Your task to perform on an android device: Search for vegetarian restaurants on Maps Image 0: 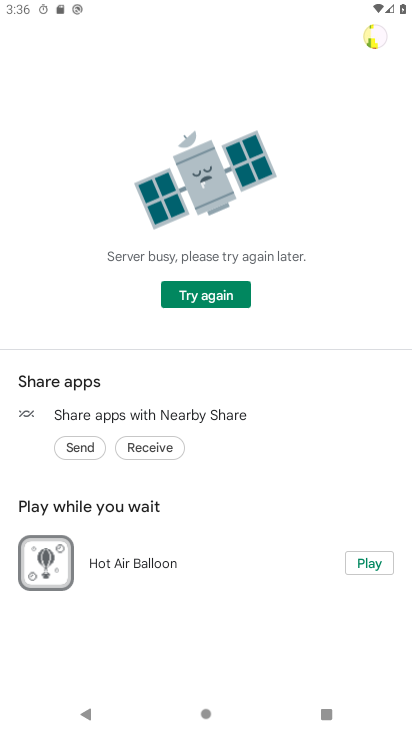
Step 0: press home button
Your task to perform on an android device: Search for vegetarian restaurants on Maps Image 1: 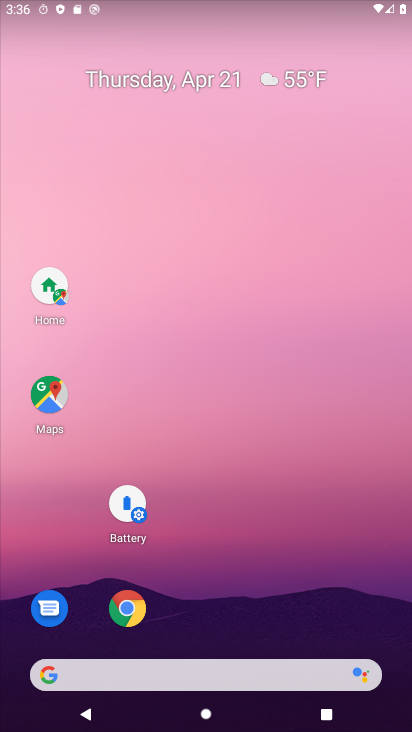
Step 1: click (62, 393)
Your task to perform on an android device: Search for vegetarian restaurants on Maps Image 2: 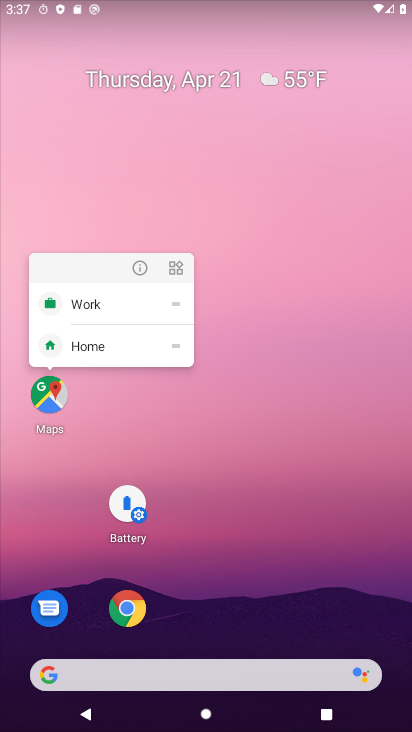
Step 2: click (62, 393)
Your task to perform on an android device: Search for vegetarian restaurants on Maps Image 3: 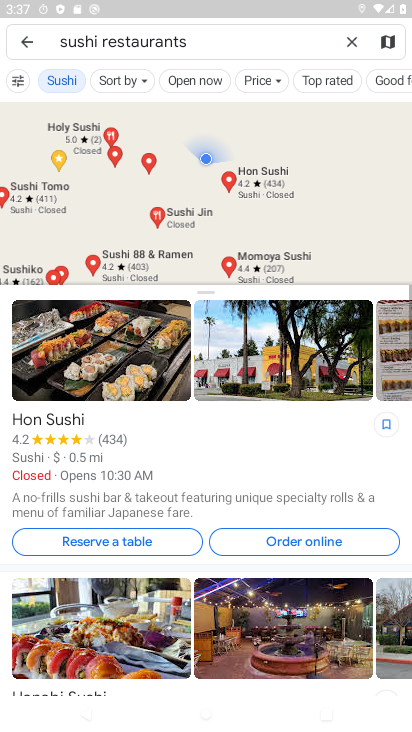
Step 3: click (355, 47)
Your task to perform on an android device: Search for vegetarian restaurants on Maps Image 4: 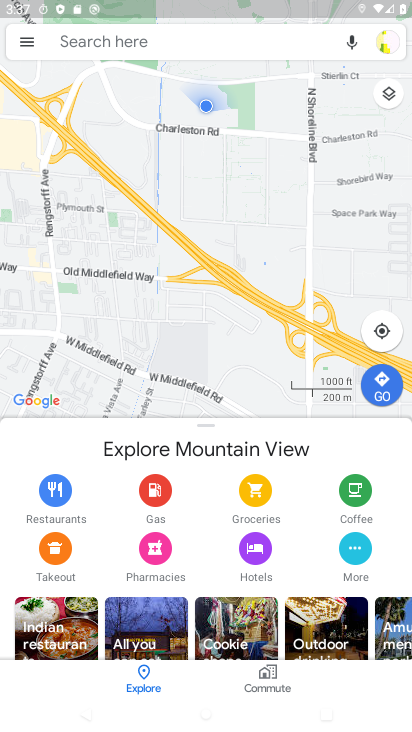
Step 4: click (212, 44)
Your task to perform on an android device: Search for vegetarian restaurants on Maps Image 5: 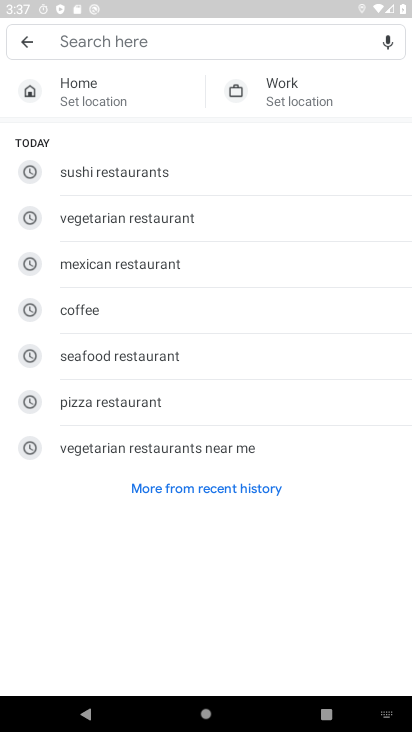
Step 5: click (184, 210)
Your task to perform on an android device: Search for vegetarian restaurants on Maps Image 6: 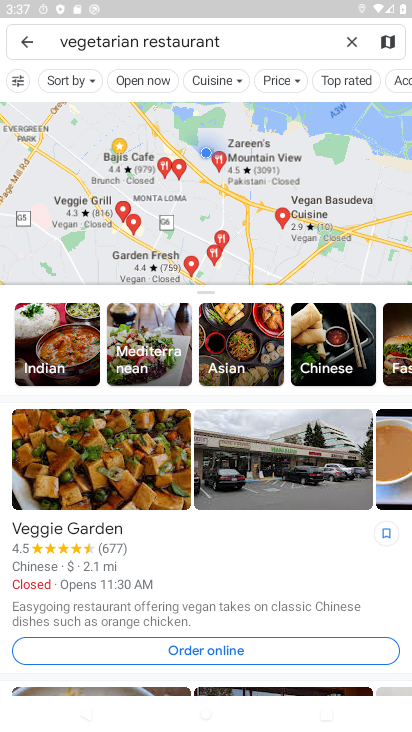
Step 6: task complete